Your task to perform on an android device: change text size in settings app Image 0: 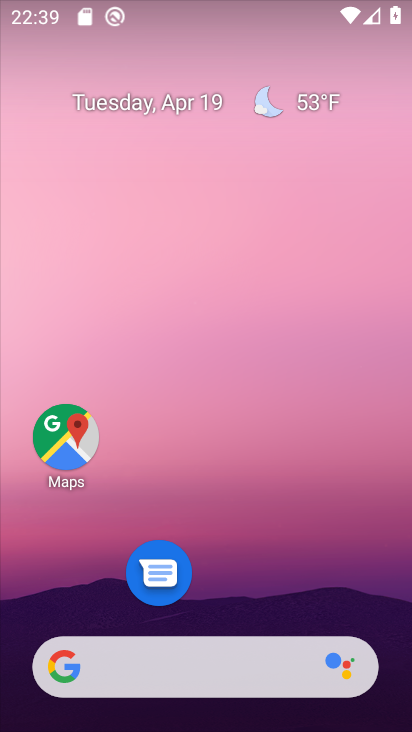
Step 0: drag from (225, 614) to (209, 40)
Your task to perform on an android device: change text size in settings app Image 1: 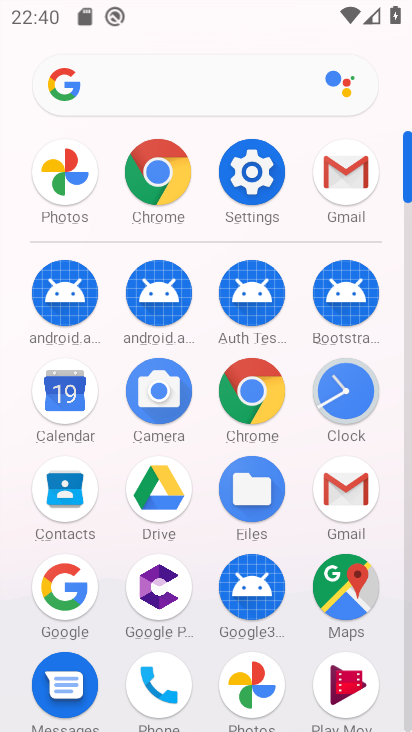
Step 1: click (253, 165)
Your task to perform on an android device: change text size in settings app Image 2: 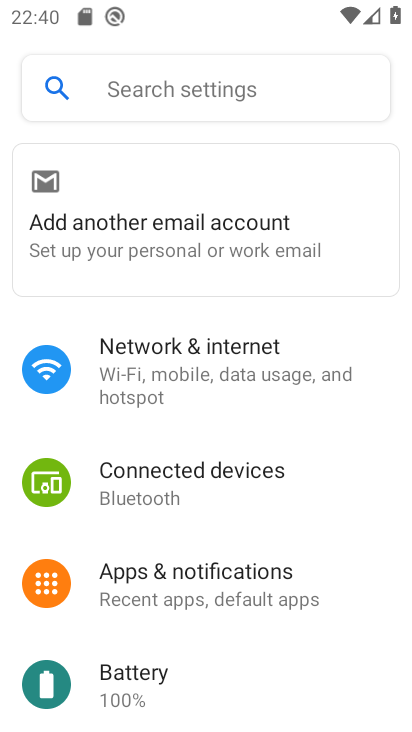
Step 2: drag from (185, 667) to (197, 138)
Your task to perform on an android device: change text size in settings app Image 3: 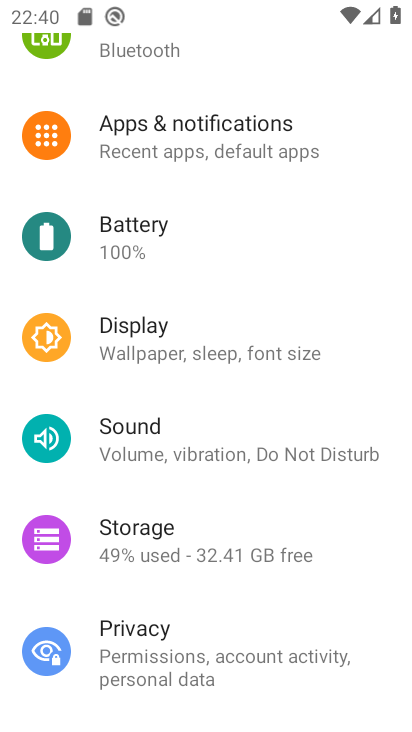
Step 3: click (189, 322)
Your task to perform on an android device: change text size in settings app Image 4: 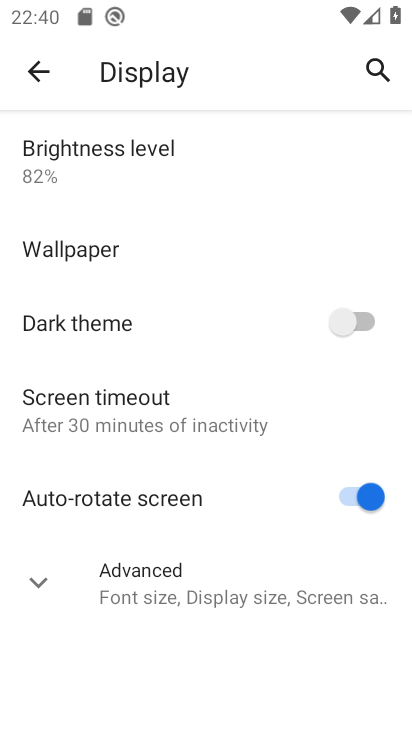
Step 4: click (44, 574)
Your task to perform on an android device: change text size in settings app Image 5: 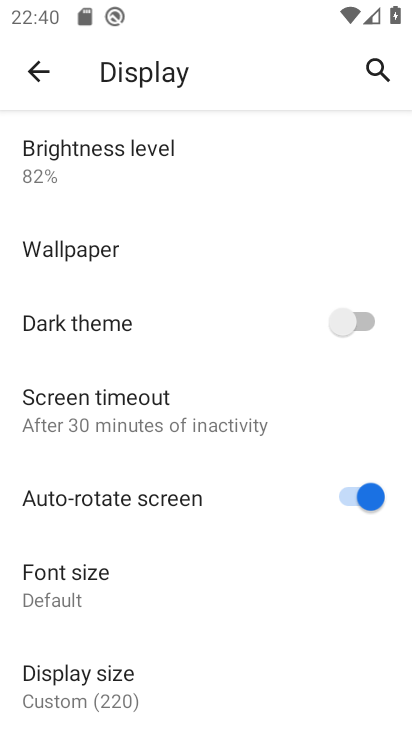
Step 5: click (115, 584)
Your task to perform on an android device: change text size in settings app Image 6: 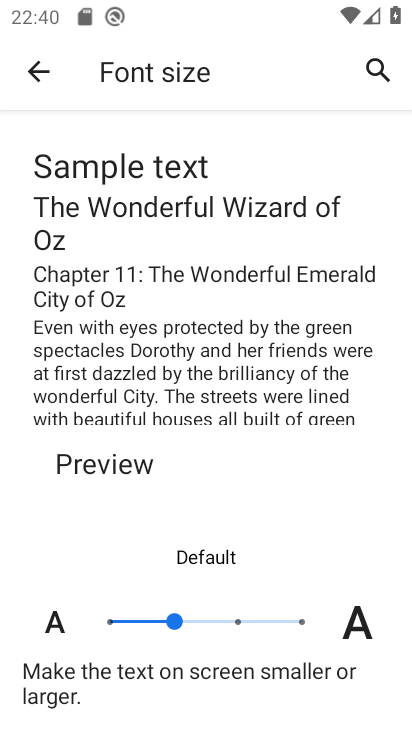
Step 6: click (112, 616)
Your task to perform on an android device: change text size in settings app Image 7: 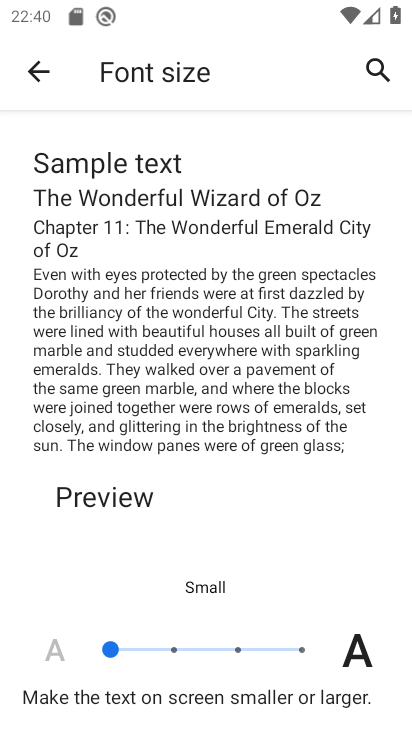
Step 7: task complete